Your task to perform on an android device: Open sound settings Image 0: 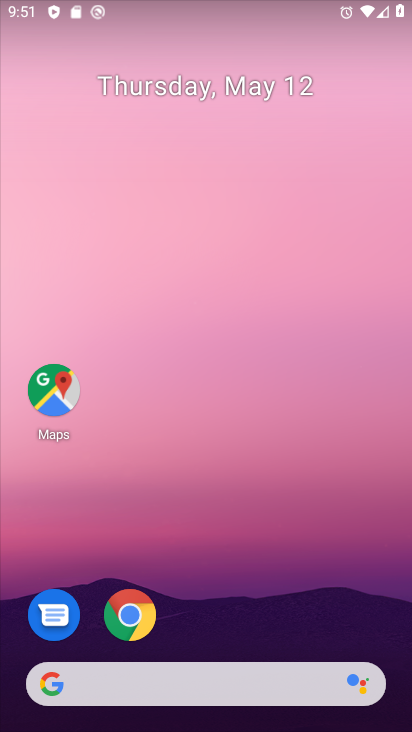
Step 0: drag from (304, 607) to (256, 67)
Your task to perform on an android device: Open sound settings Image 1: 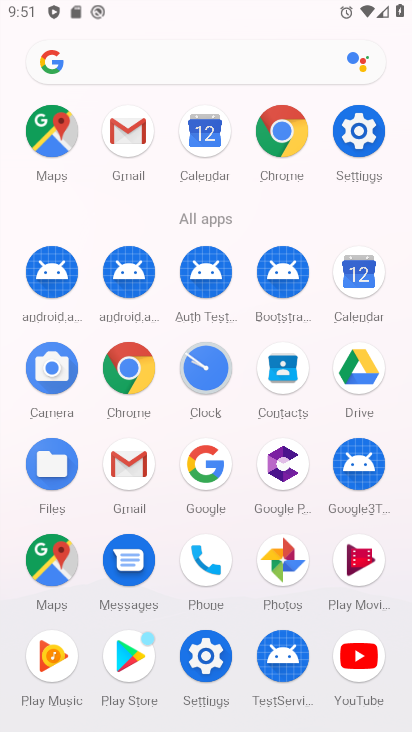
Step 1: click (355, 124)
Your task to perform on an android device: Open sound settings Image 2: 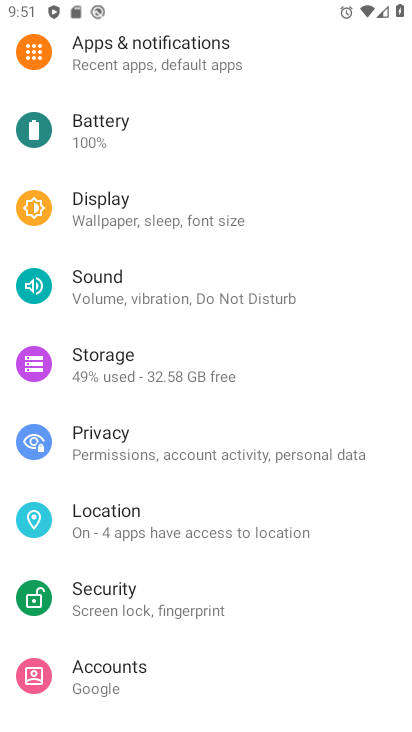
Step 2: click (237, 296)
Your task to perform on an android device: Open sound settings Image 3: 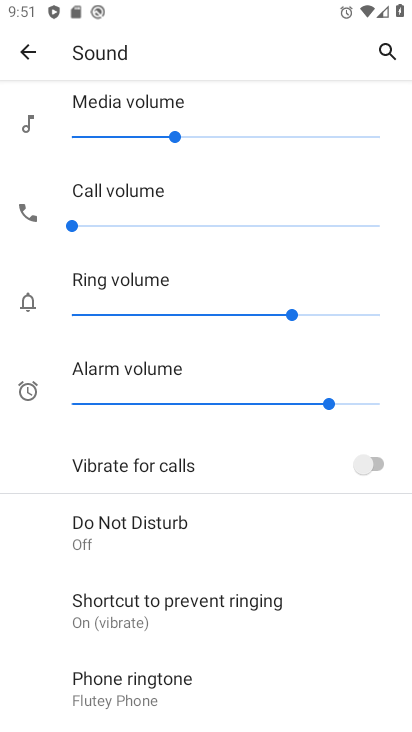
Step 3: task complete